Your task to perform on an android device: change the clock display to digital Image 0: 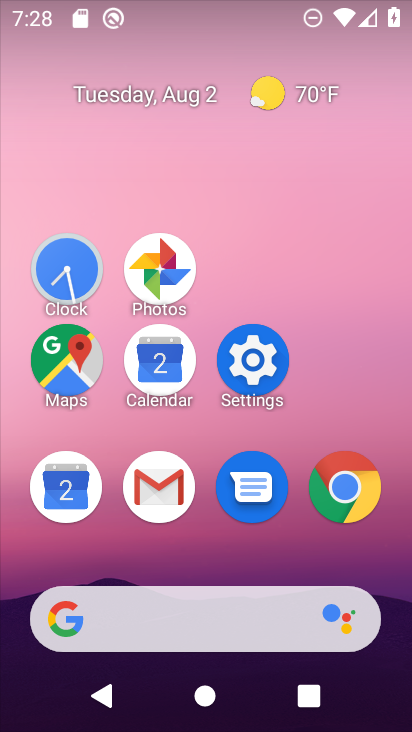
Step 0: click (66, 267)
Your task to perform on an android device: change the clock display to digital Image 1: 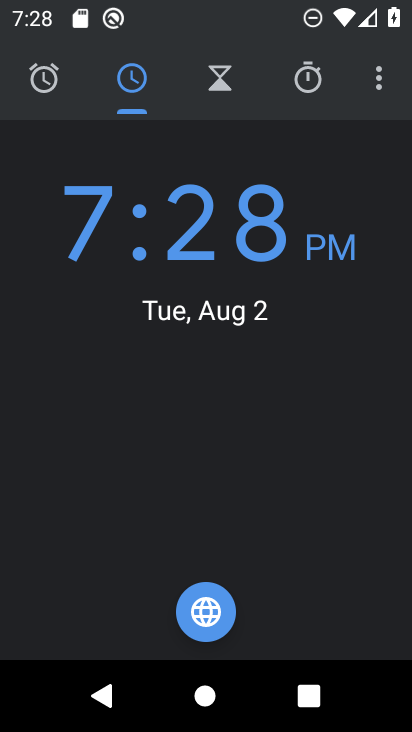
Step 1: click (377, 77)
Your task to perform on an android device: change the clock display to digital Image 2: 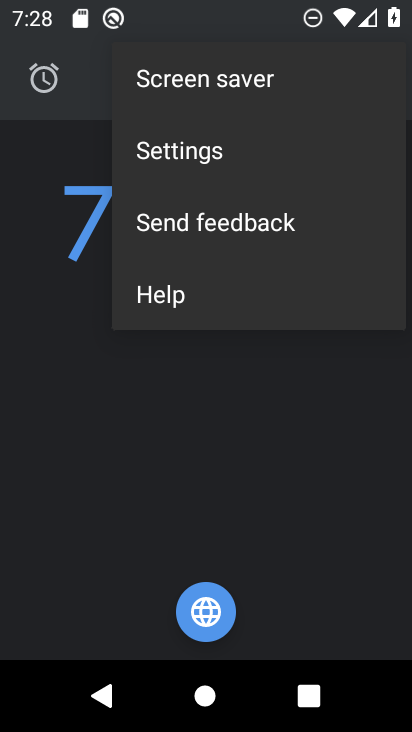
Step 2: click (210, 141)
Your task to perform on an android device: change the clock display to digital Image 3: 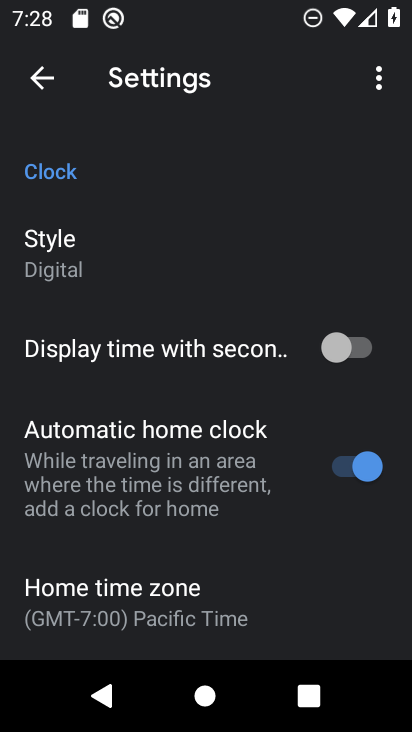
Step 3: task complete